Your task to perform on an android device: open the mobile data screen to see how much data has been used Image 0: 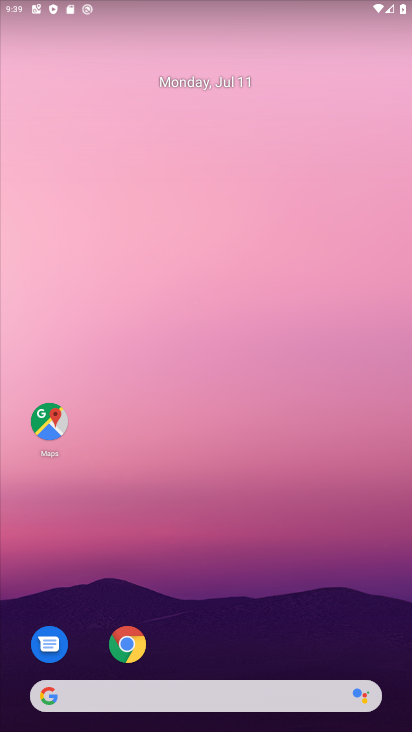
Step 0: drag from (205, 647) to (234, 155)
Your task to perform on an android device: open the mobile data screen to see how much data has been used Image 1: 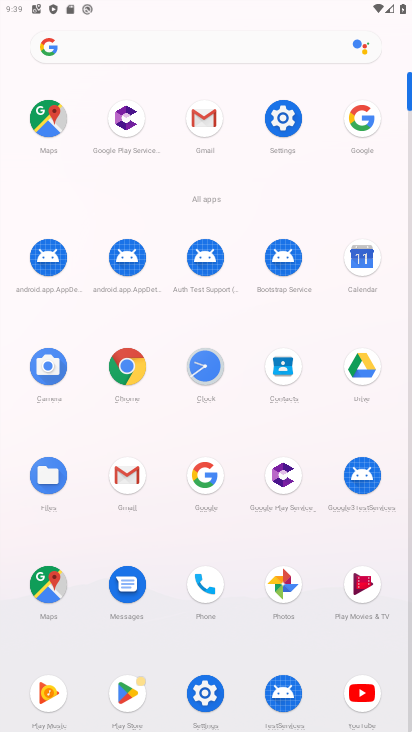
Step 1: click (286, 119)
Your task to perform on an android device: open the mobile data screen to see how much data has been used Image 2: 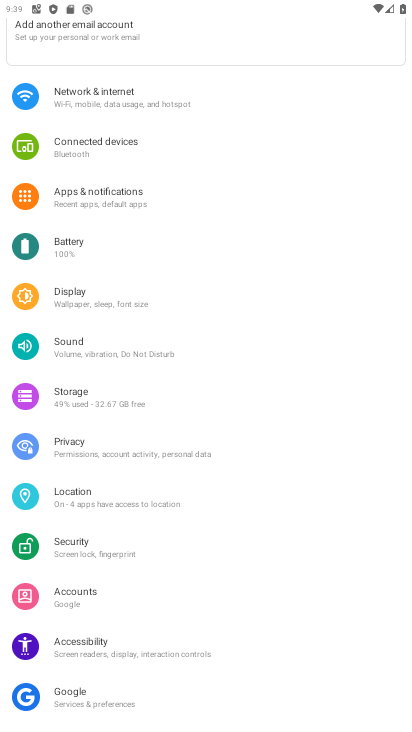
Step 2: click (144, 98)
Your task to perform on an android device: open the mobile data screen to see how much data has been used Image 3: 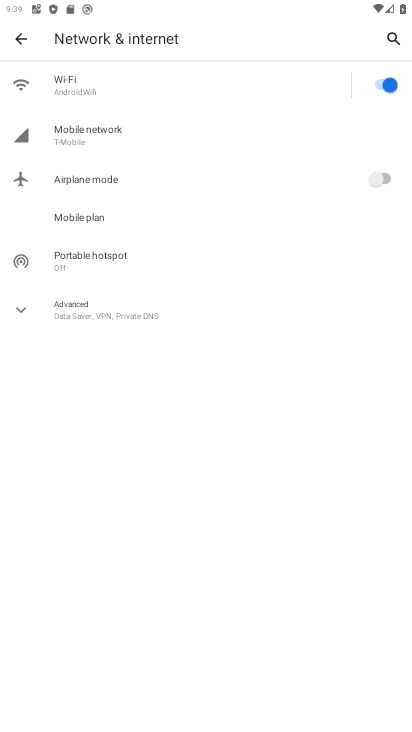
Step 3: click (127, 138)
Your task to perform on an android device: open the mobile data screen to see how much data has been used Image 4: 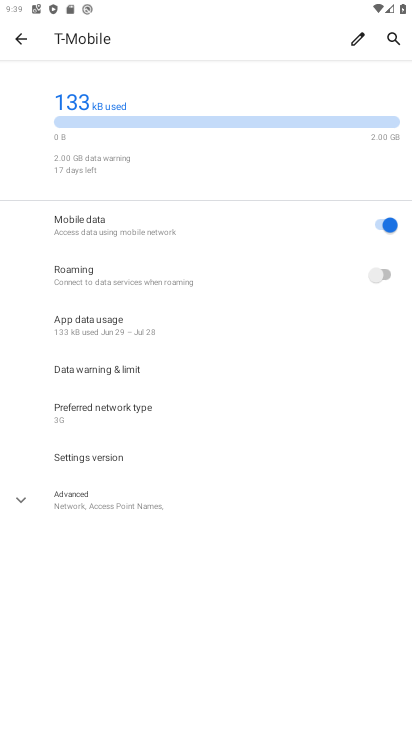
Step 4: task complete